Your task to perform on an android device: Toggle the flashlight Image 0: 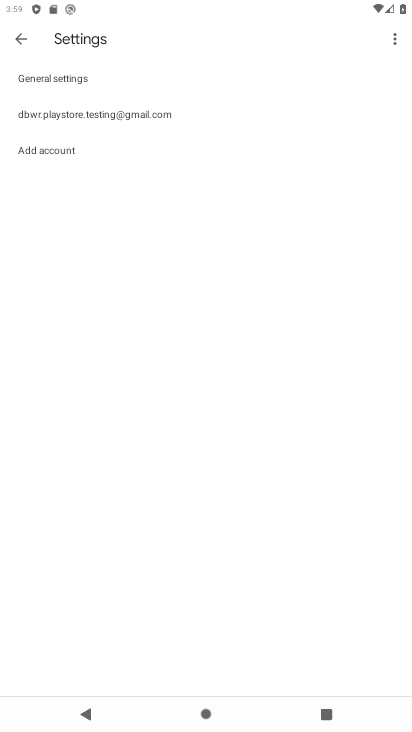
Step 0: press home button
Your task to perform on an android device: Toggle the flashlight Image 1: 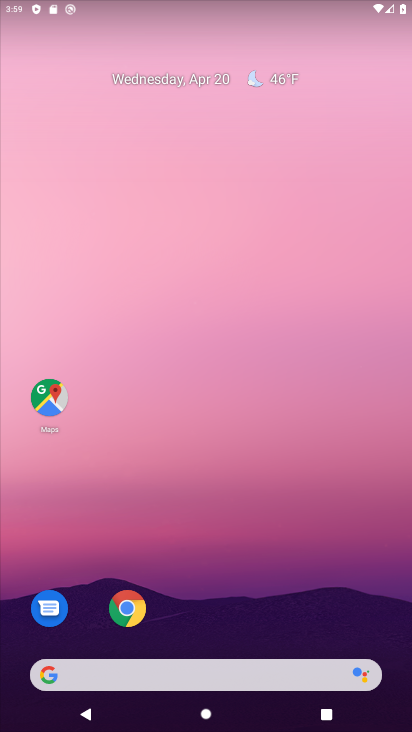
Step 1: drag from (200, 641) to (124, 7)
Your task to perform on an android device: Toggle the flashlight Image 2: 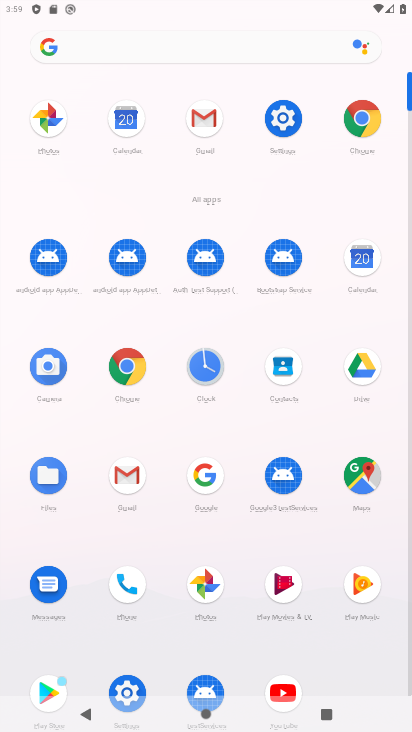
Step 2: click (276, 125)
Your task to perform on an android device: Toggle the flashlight Image 3: 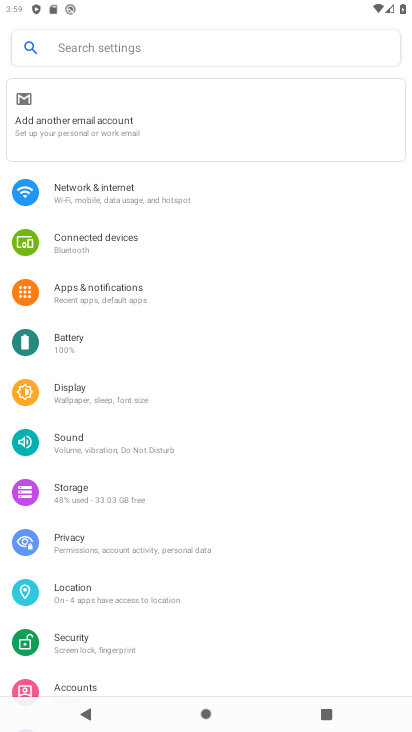
Step 3: click (81, 477)
Your task to perform on an android device: Toggle the flashlight Image 4: 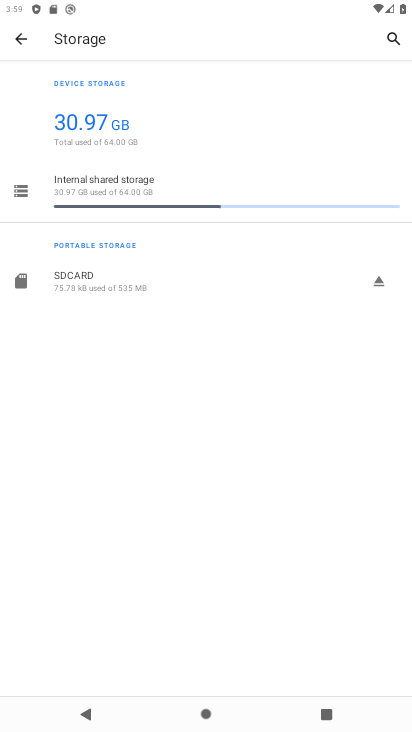
Step 4: click (21, 31)
Your task to perform on an android device: Toggle the flashlight Image 5: 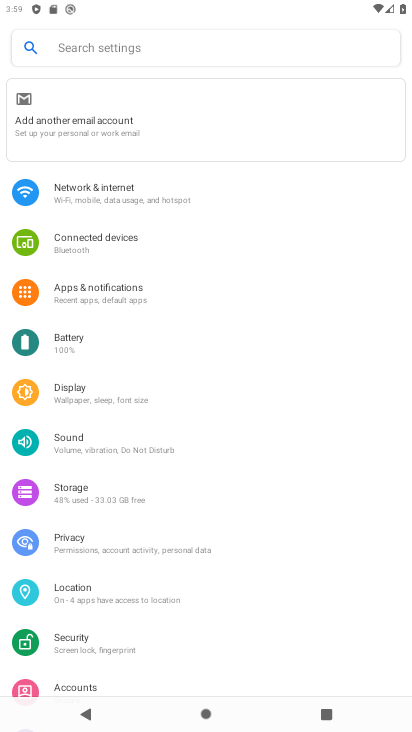
Step 5: task complete